Your task to perform on an android device: Find the nearest grocery store Image 0: 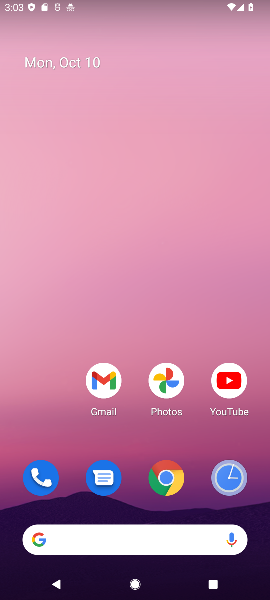
Step 0: click (165, 472)
Your task to perform on an android device: Find the nearest grocery store Image 1: 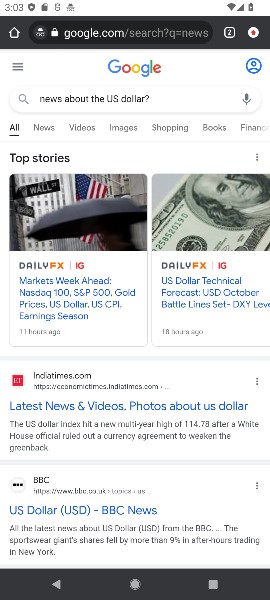
Step 1: click (118, 24)
Your task to perform on an android device: Find the nearest grocery store Image 2: 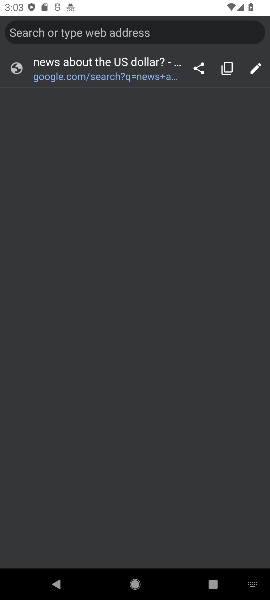
Step 2: type "nearest grocery store"
Your task to perform on an android device: Find the nearest grocery store Image 3: 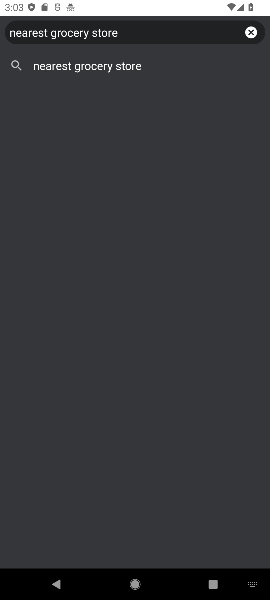
Step 3: click (124, 73)
Your task to perform on an android device: Find the nearest grocery store Image 4: 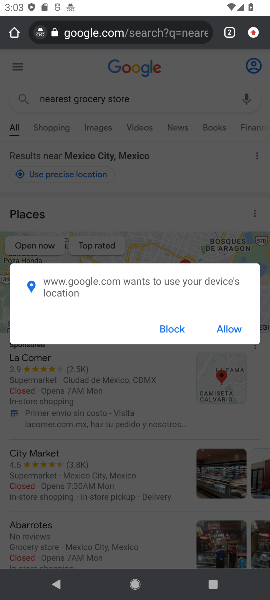
Step 4: click (220, 328)
Your task to perform on an android device: Find the nearest grocery store Image 5: 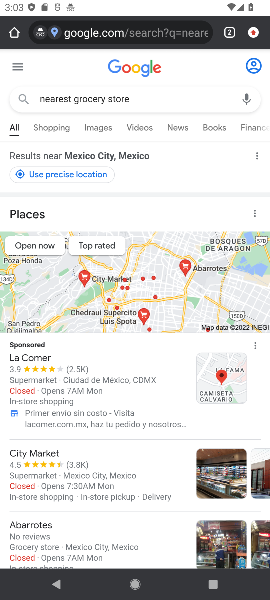
Step 5: task complete